Your task to perform on an android device: What is the recent news? Image 0: 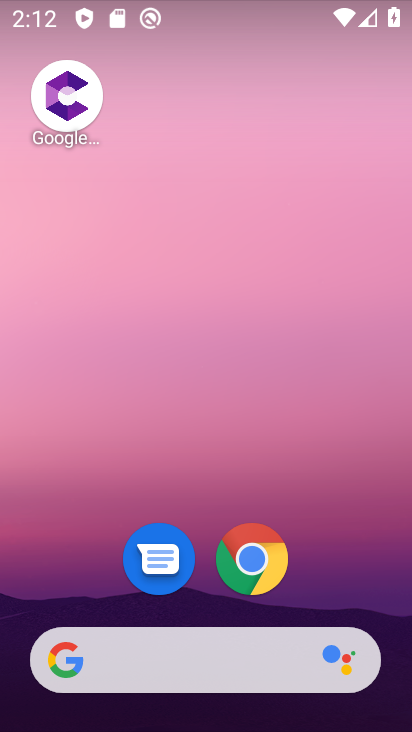
Step 0: drag from (304, 596) to (314, 64)
Your task to perform on an android device: What is the recent news? Image 1: 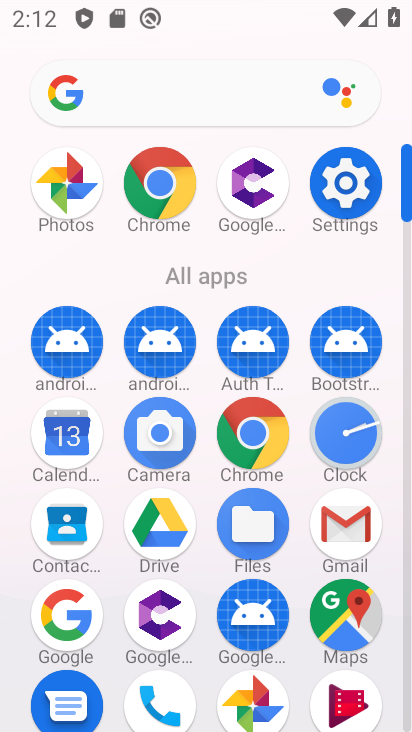
Step 1: click (47, 621)
Your task to perform on an android device: What is the recent news? Image 2: 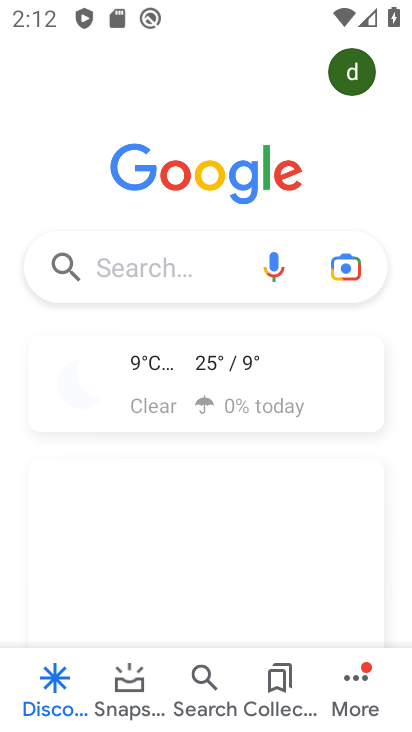
Step 2: click (184, 275)
Your task to perform on an android device: What is the recent news? Image 3: 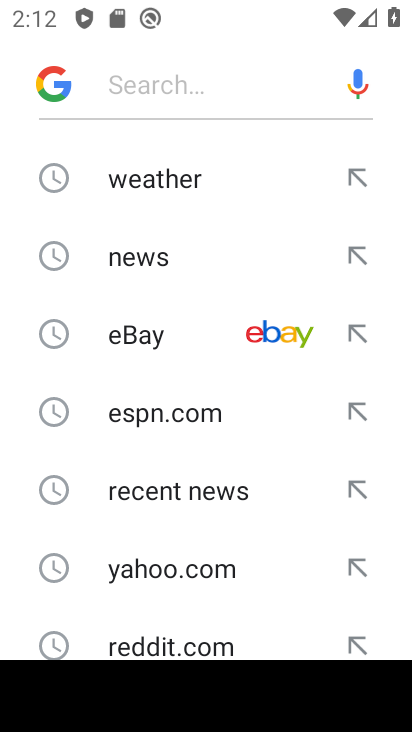
Step 3: click (189, 492)
Your task to perform on an android device: What is the recent news? Image 4: 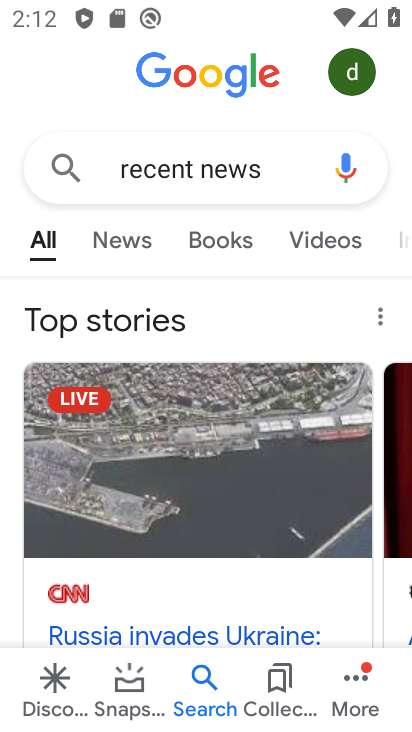
Step 4: task complete